Your task to perform on an android device: What is the news today? Image 0: 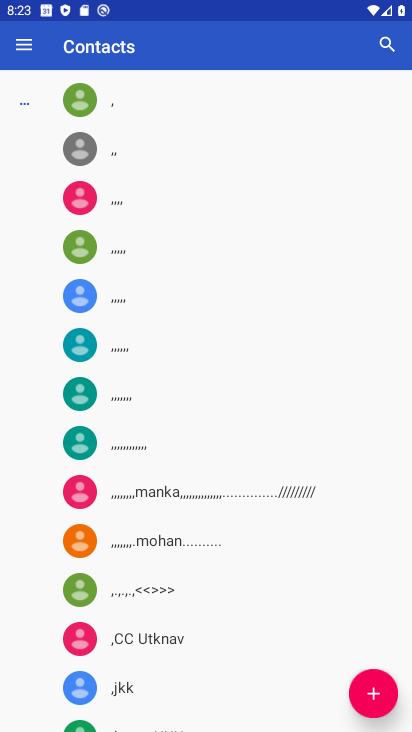
Step 0: click (220, 22)
Your task to perform on an android device: What is the news today? Image 1: 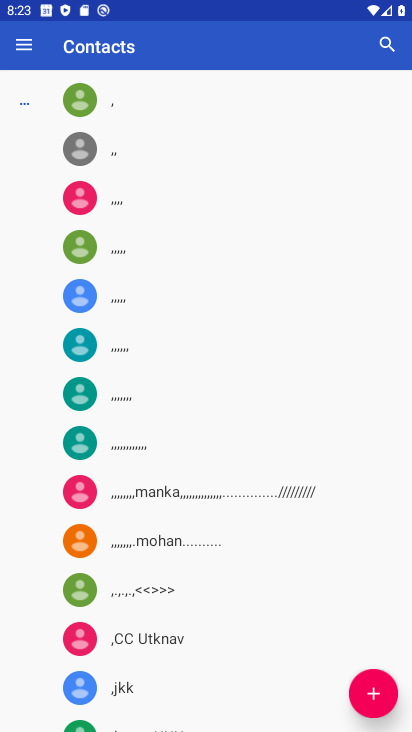
Step 1: press home button
Your task to perform on an android device: What is the news today? Image 2: 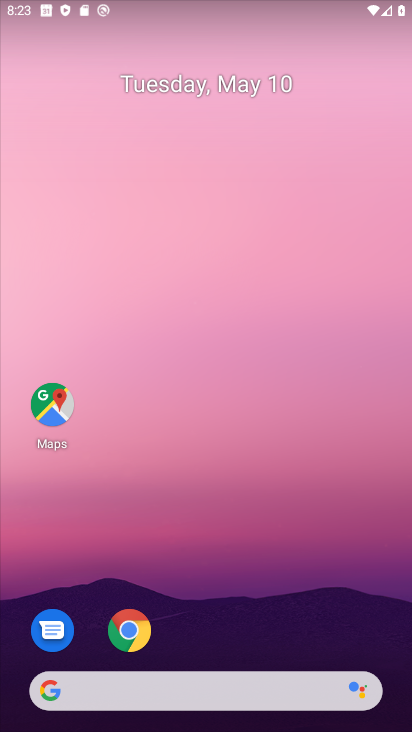
Step 2: click (198, 686)
Your task to perform on an android device: What is the news today? Image 3: 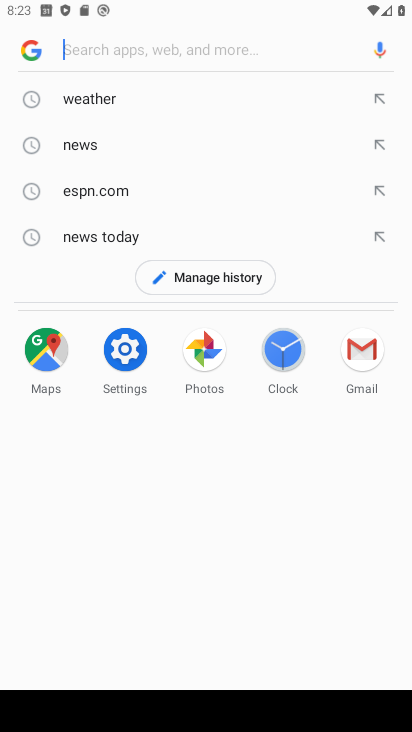
Step 3: click (65, 148)
Your task to perform on an android device: What is the news today? Image 4: 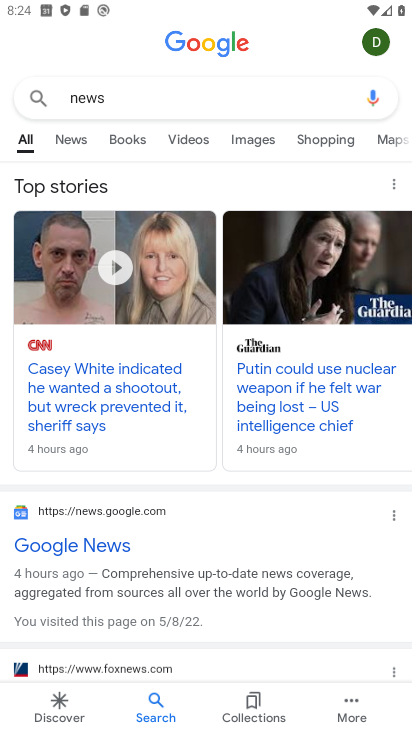
Step 4: task complete